Your task to perform on an android device: Go to accessibility settings Image 0: 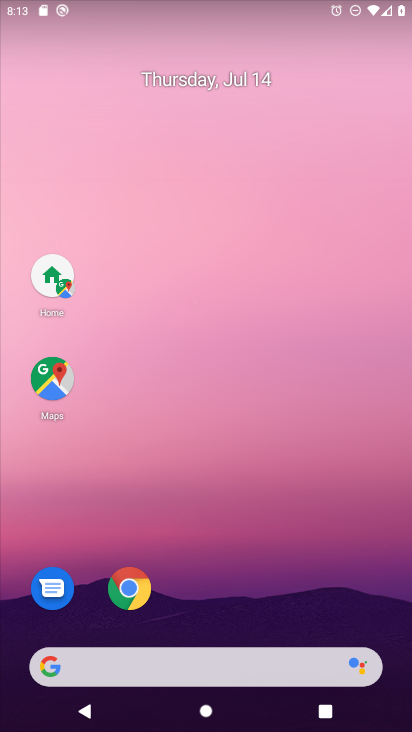
Step 0: drag from (42, 676) to (275, 32)
Your task to perform on an android device: Go to accessibility settings Image 1: 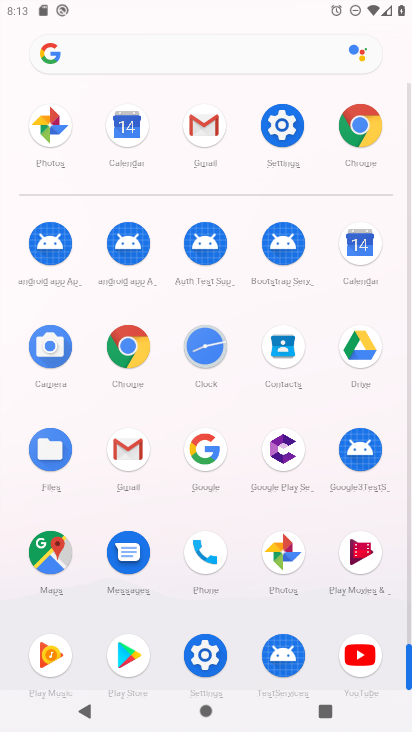
Step 1: click (192, 664)
Your task to perform on an android device: Go to accessibility settings Image 2: 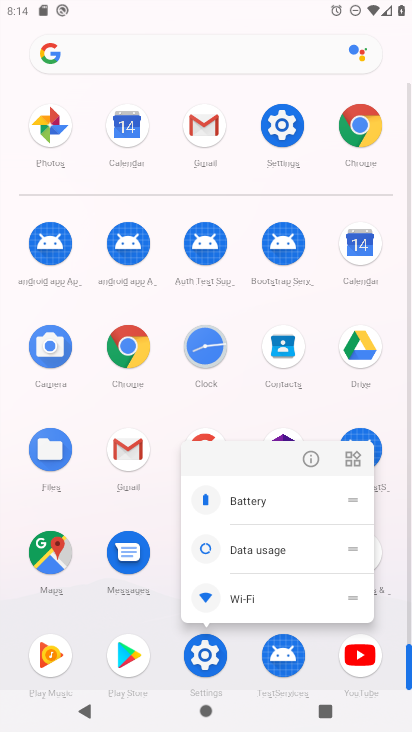
Step 2: click (197, 650)
Your task to perform on an android device: Go to accessibility settings Image 3: 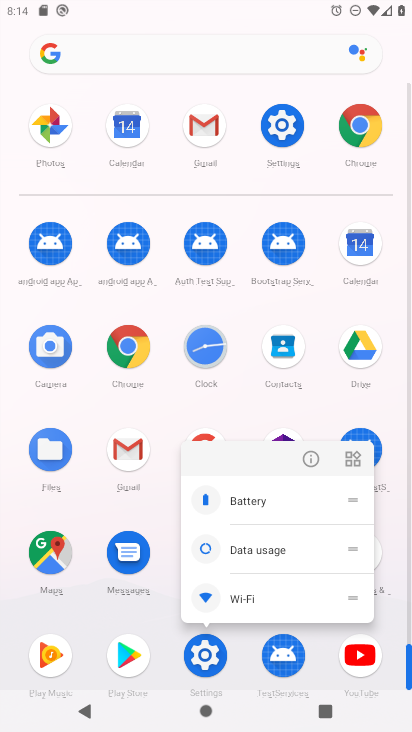
Step 3: click (197, 650)
Your task to perform on an android device: Go to accessibility settings Image 4: 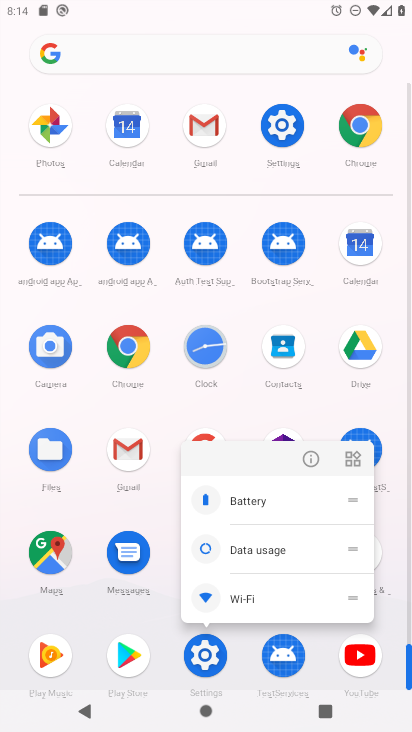
Step 4: task complete